Your task to perform on an android device: Open network settings Image 0: 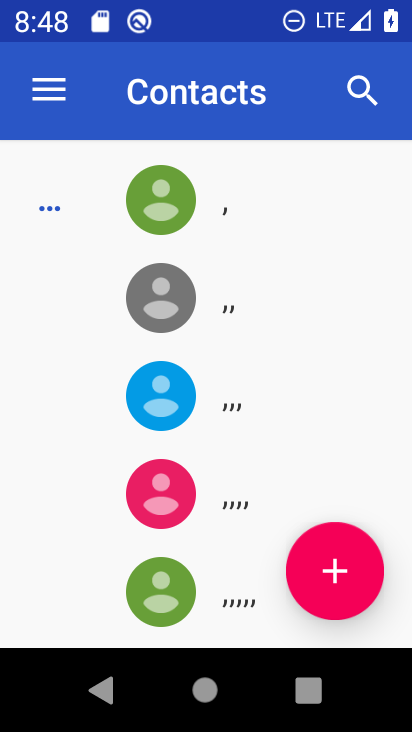
Step 0: press home button
Your task to perform on an android device: Open network settings Image 1: 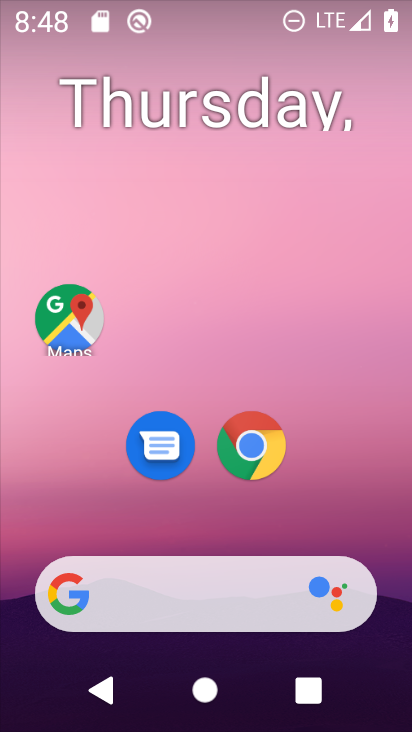
Step 1: drag from (390, 632) to (314, 101)
Your task to perform on an android device: Open network settings Image 2: 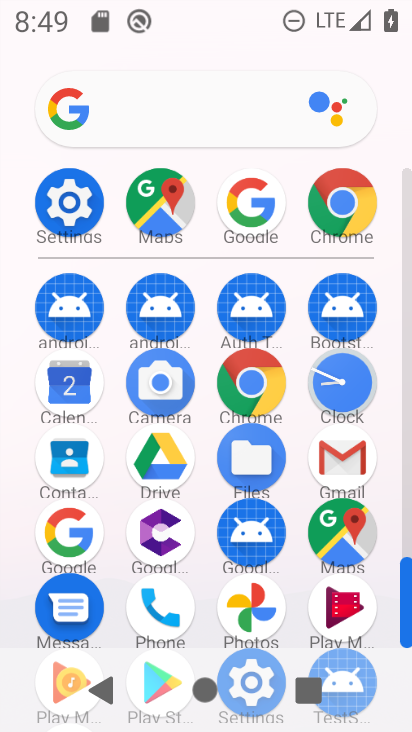
Step 2: click (68, 202)
Your task to perform on an android device: Open network settings Image 3: 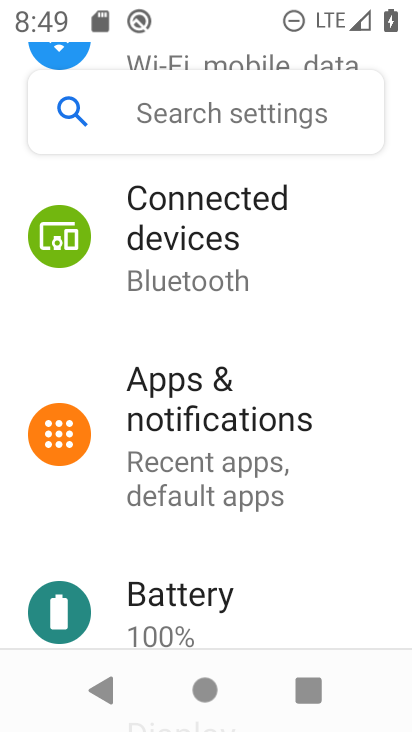
Step 3: drag from (133, 218) to (275, 664)
Your task to perform on an android device: Open network settings Image 4: 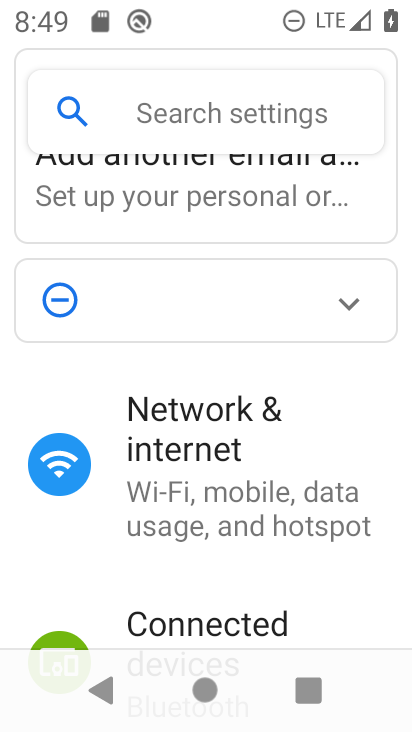
Step 4: click (193, 433)
Your task to perform on an android device: Open network settings Image 5: 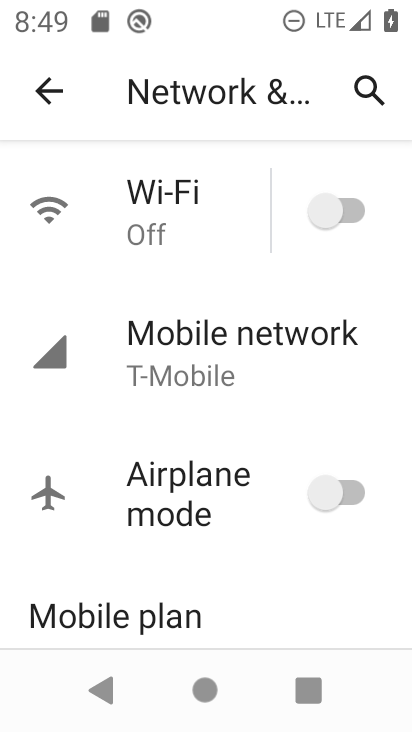
Step 5: task complete